Your task to perform on an android device: Go to Google maps Image 0: 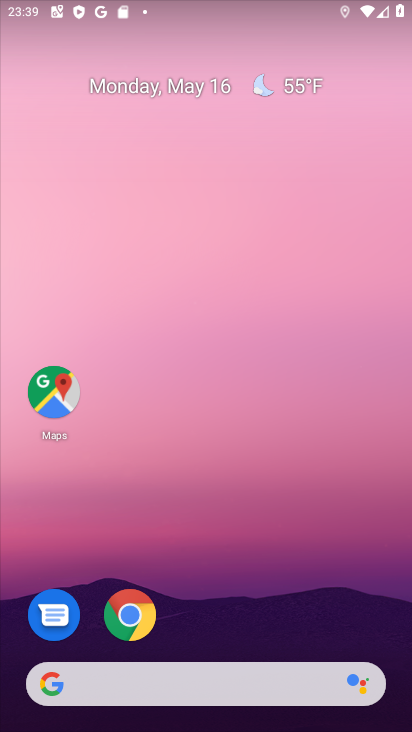
Step 0: drag from (210, 649) to (214, 0)
Your task to perform on an android device: Go to Google maps Image 1: 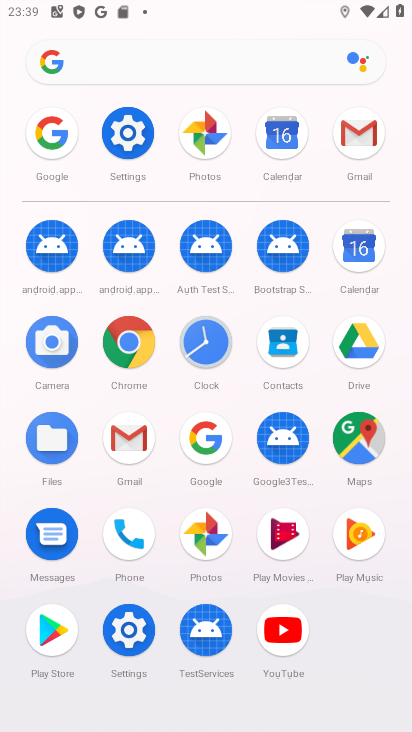
Step 1: click (344, 443)
Your task to perform on an android device: Go to Google maps Image 2: 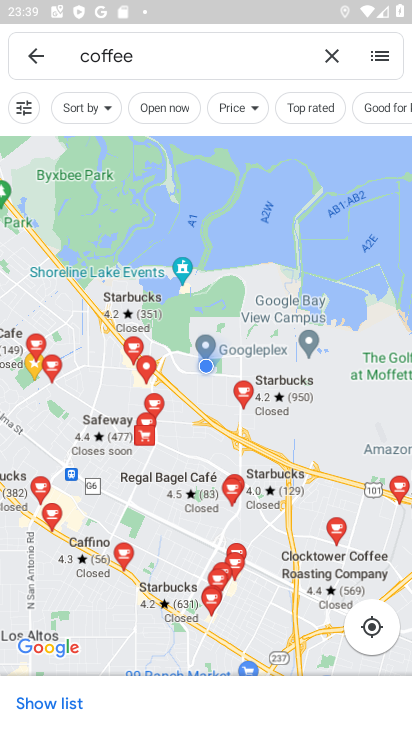
Step 2: task complete